Your task to perform on an android device: Open Google Image 0: 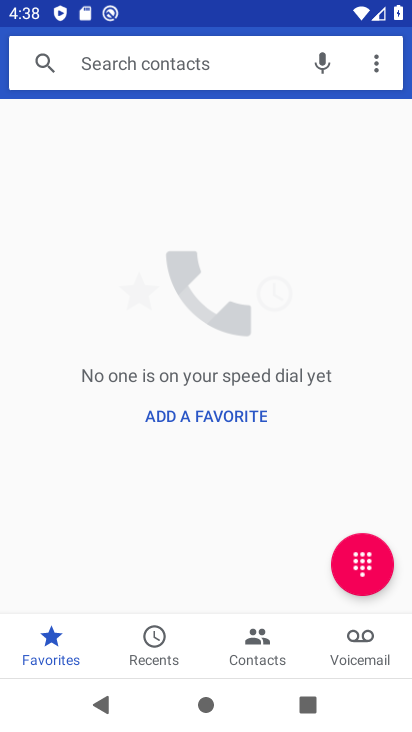
Step 0: press home button
Your task to perform on an android device: Open Google Image 1: 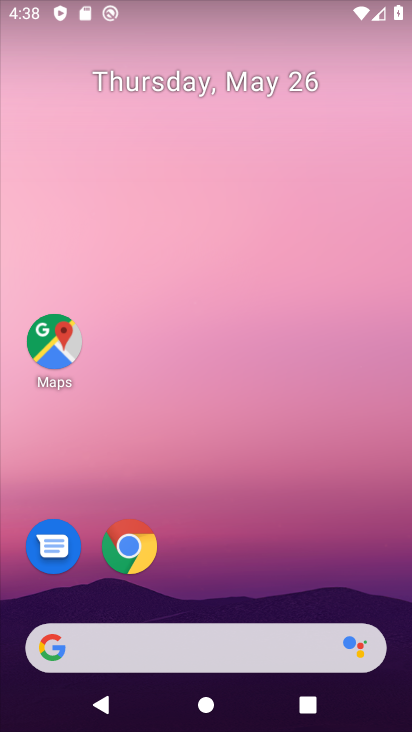
Step 1: drag from (226, 593) to (231, 186)
Your task to perform on an android device: Open Google Image 2: 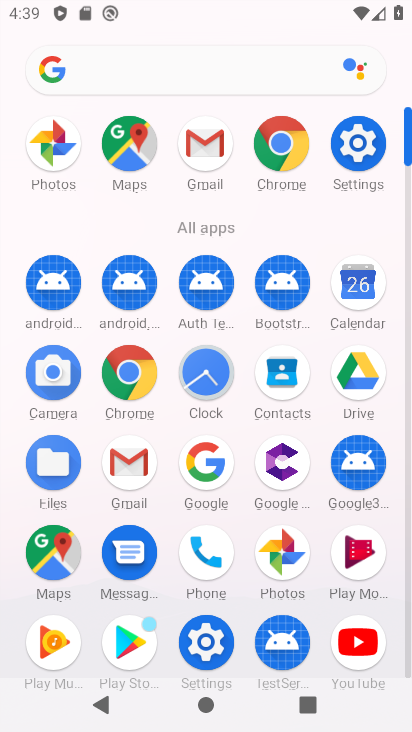
Step 2: click (207, 447)
Your task to perform on an android device: Open Google Image 3: 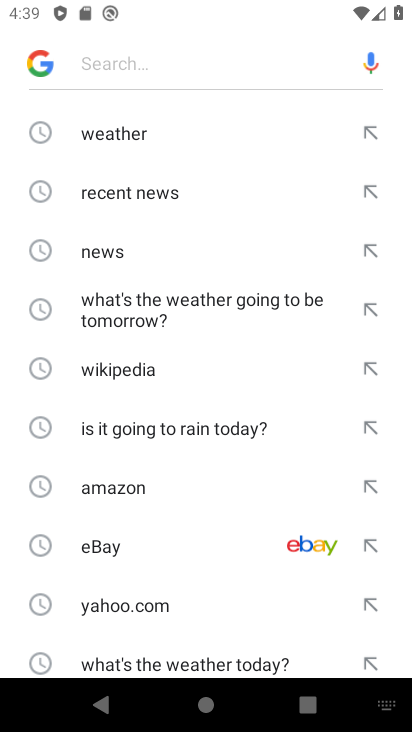
Step 3: task complete